Your task to perform on an android device: Clear the shopping cart on amazon. Search for logitech g pro on amazon, select the first entry, and add it to the cart. Image 0: 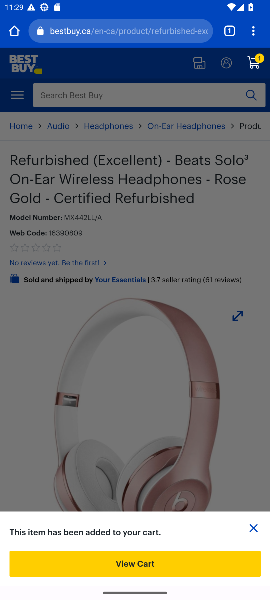
Step 0: press home button
Your task to perform on an android device: Clear the shopping cart on amazon. Search for logitech g pro on amazon, select the first entry, and add it to the cart. Image 1: 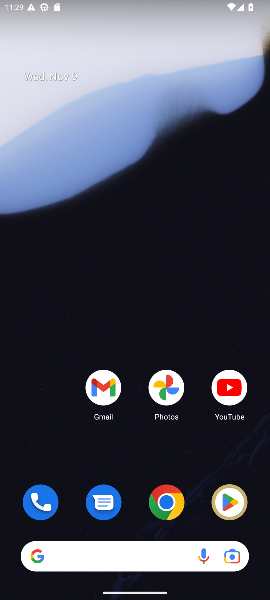
Step 1: drag from (130, 476) to (216, 14)
Your task to perform on an android device: Clear the shopping cart on amazon. Search for logitech g pro on amazon, select the first entry, and add it to the cart. Image 2: 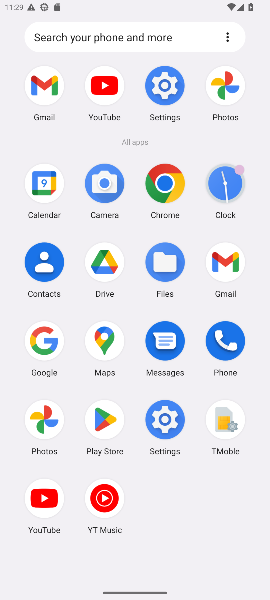
Step 2: click (163, 185)
Your task to perform on an android device: Clear the shopping cart on amazon. Search for logitech g pro on amazon, select the first entry, and add it to the cart. Image 3: 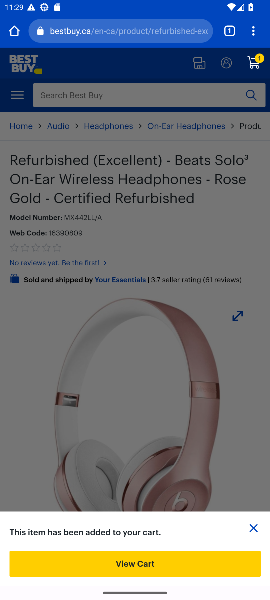
Step 3: click (110, 33)
Your task to perform on an android device: Clear the shopping cart on amazon. Search for logitech g pro on amazon, select the first entry, and add it to the cart. Image 4: 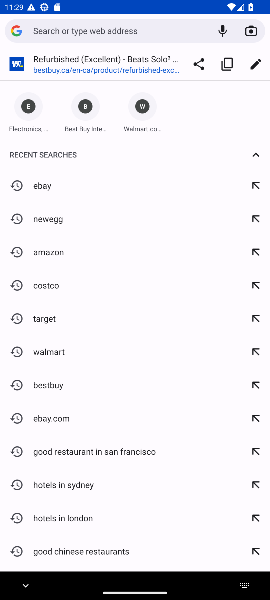
Step 4: type "amazon.com"
Your task to perform on an android device: Clear the shopping cart on amazon. Search for logitech g pro on amazon, select the first entry, and add it to the cart. Image 5: 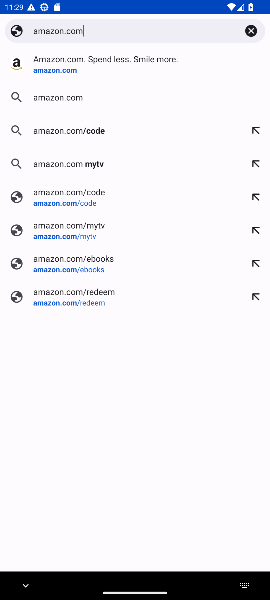
Step 5: press enter
Your task to perform on an android device: Clear the shopping cart on amazon. Search for logitech g pro on amazon, select the first entry, and add it to the cart. Image 6: 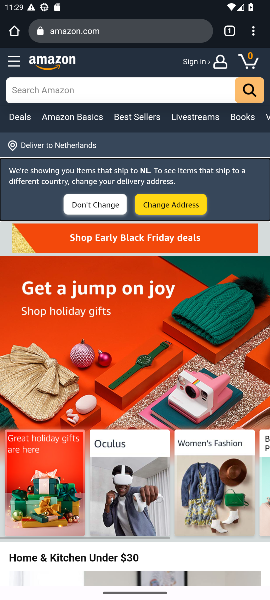
Step 6: click (252, 58)
Your task to perform on an android device: Clear the shopping cart on amazon. Search for logitech g pro on amazon, select the first entry, and add it to the cart. Image 7: 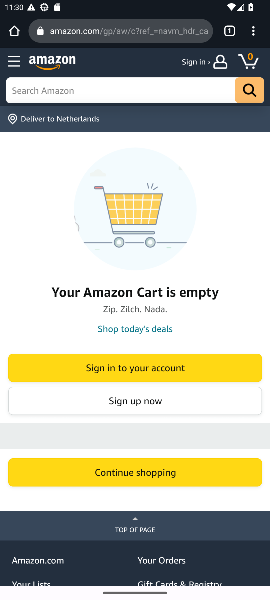
Step 7: click (251, 63)
Your task to perform on an android device: Clear the shopping cart on amazon. Search for logitech g pro on amazon, select the first entry, and add it to the cart. Image 8: 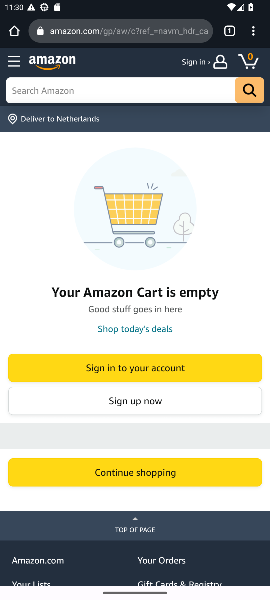
Step 8: click (158, 86)
Your task to perform on an android device: Clear the shopping cart on amazon. Search for logitech g pro on amazon, select the first entry, and add it to the cart. Image 9: 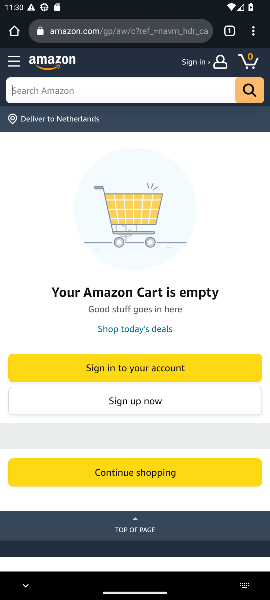
Step 9: type "logitech g pro"
Your task to perform on an android device: Clear the shopping cart on amazon. Search for logitech g pro on amazon, select the first entry, and add it to the cart. Image 10: 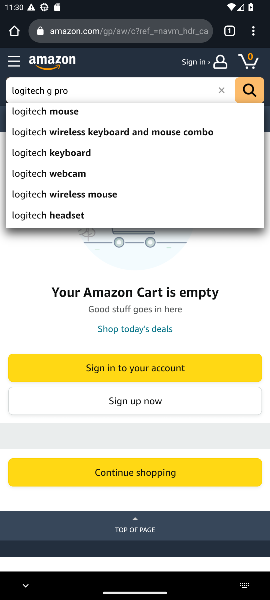
Step 10: press enter
Your task to perform on an android device: Clear the shopping cart on amazon. Search for logitech g pro on amazon, select the first entry, and add it to the cart. Image 11: 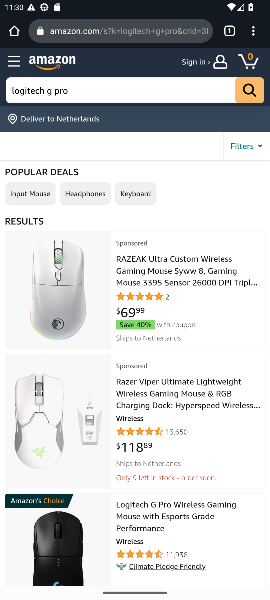
Step 11: drag from (196, 520) to (197, 298)
Your task to perform on an android device: Clear the shopping cart on amazon. Search for logitech g pro on amazon, select the first entry, and add it to the cart. Image 12: 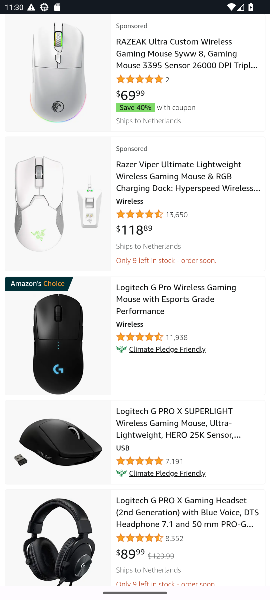
Step 12: click (152, 307)
Your task to perform on an android device: Clear the shopping cart on amazon. Search for logitech g pro on amazon, select the first entry, and add it to the cart. Image 13: 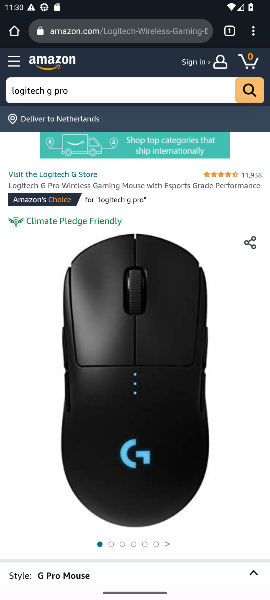
Step 13: task complete